Your task to perform on an android device: Search for the new iphone 13 pro on Etsy. Image 0: 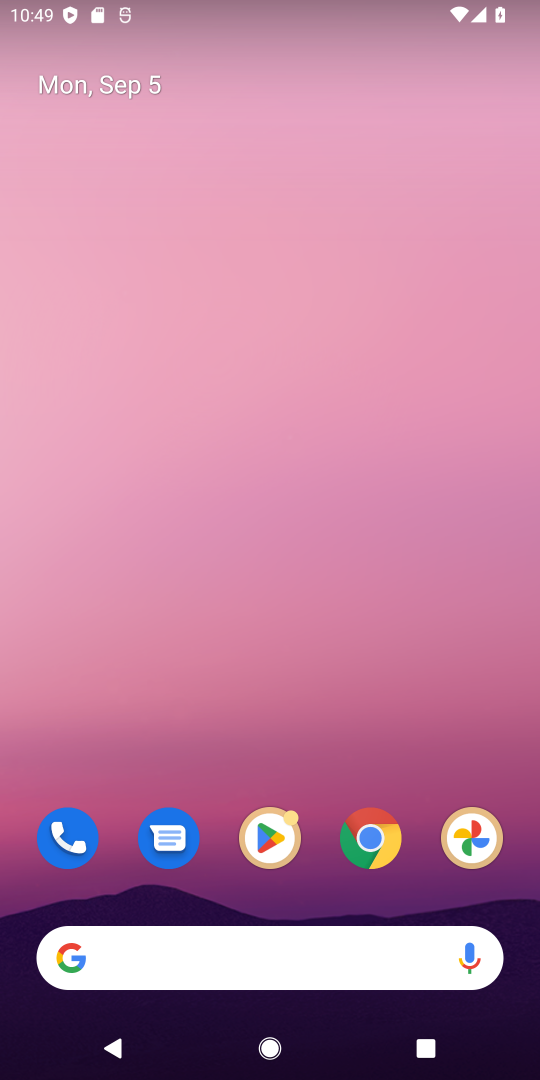
Step 0: click (299, 944)
Your task to perform on an android device: Search for the new iphone 13 pro on Etsy. Image 1: 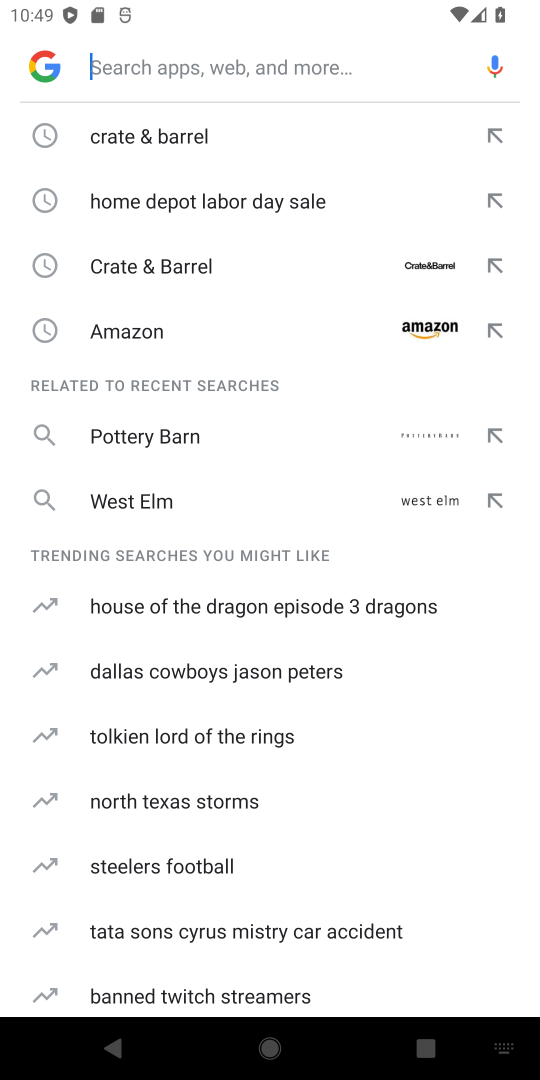
Step 1: type "Etsy"
Your task to perform on an android device: Search for the new iphone 13 pro on Etsy. Image 2: 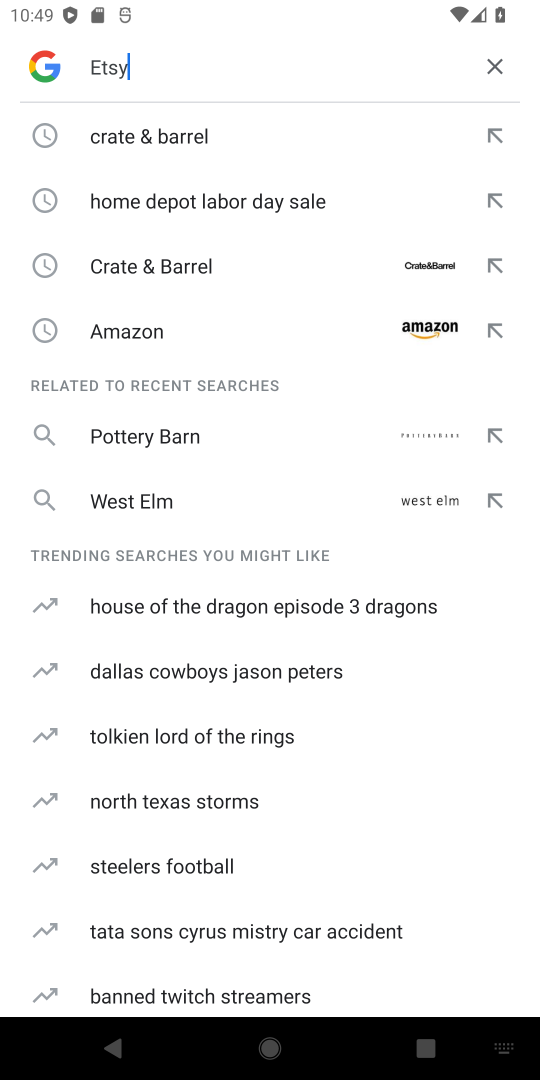
Step 2: type ""
Your task to perform on an android device: Search for the new iphone 13 pro on Etsy. Image 3: 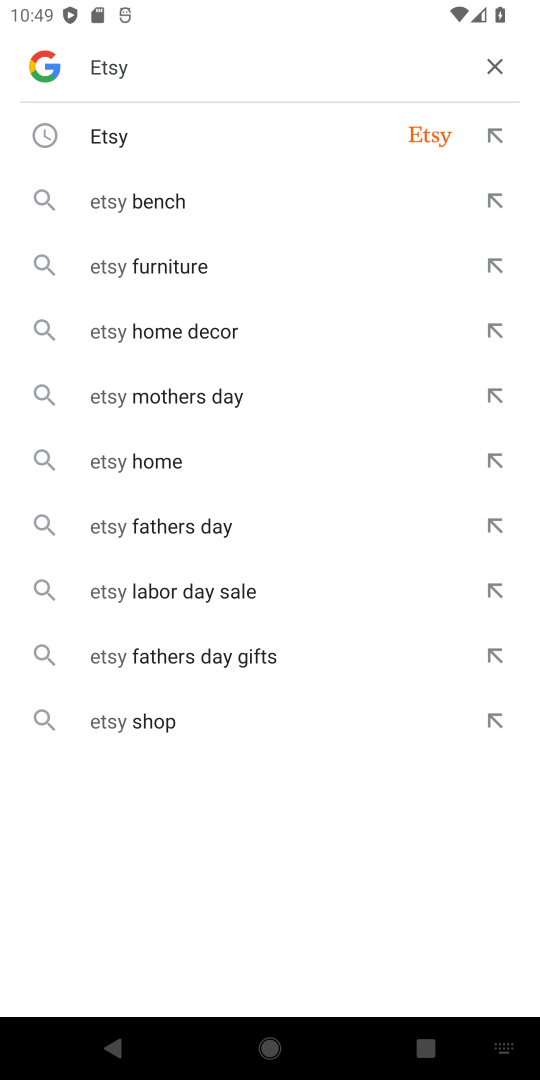
Step 3: click (136, 141)
Your task to perform on an android device: Search for the new iphone 13 pro on Etsy. Image 4: 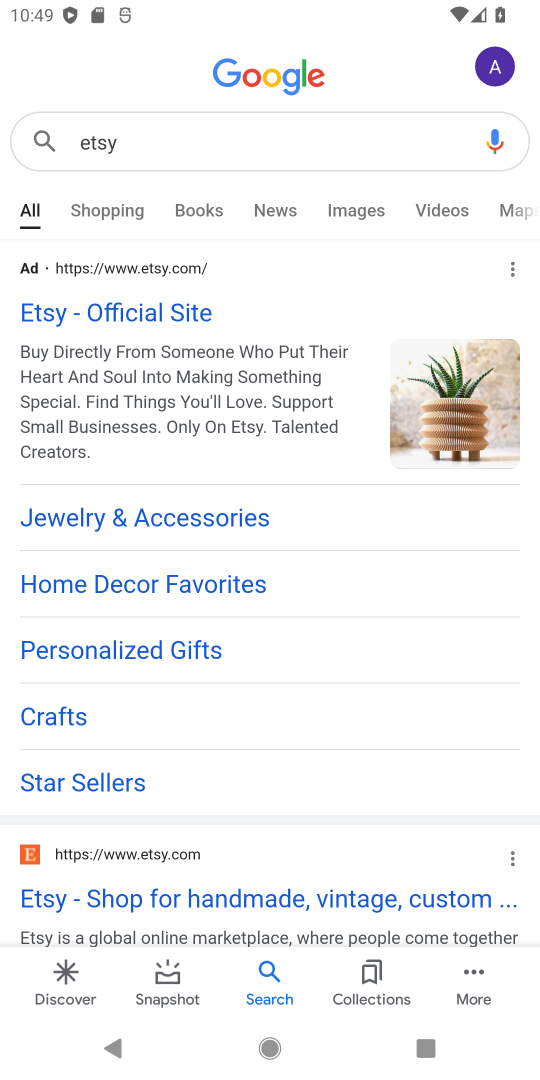
Step 4: click (156, 907)
Your task to perform on an android device: Search for the new iphone 13 pro on Etsy. Image 5: 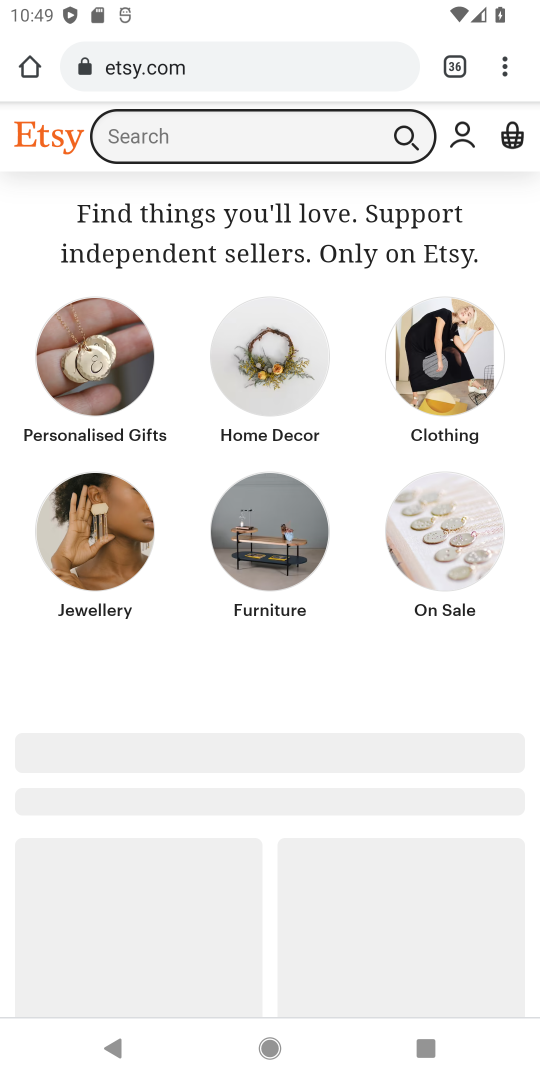
Step 5: click (220, 153)
Your task to perform on an android device: Search for the new iphone 13 pro on Etsy. Image 6: 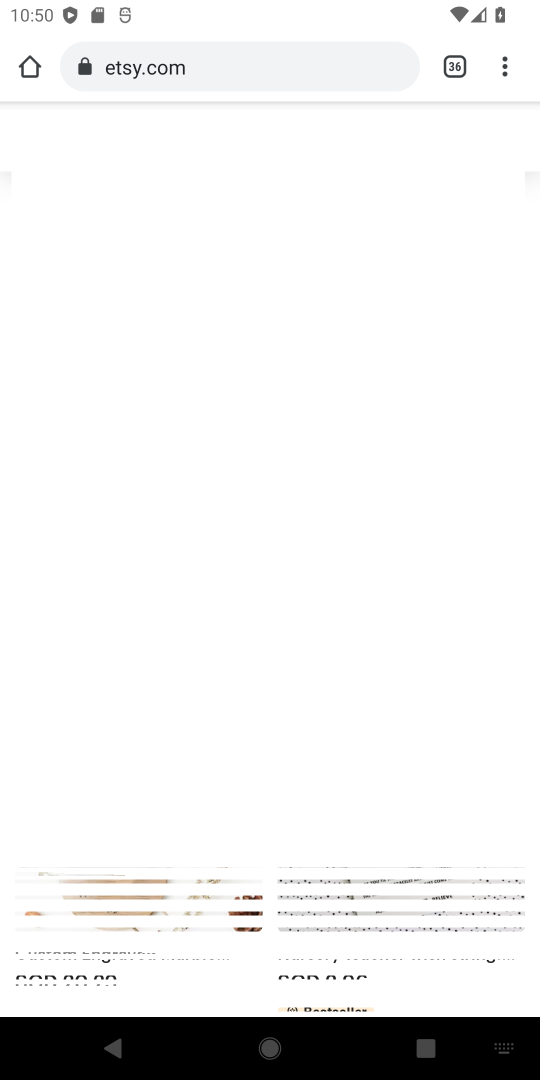
Step 6: type " iphone 13"
Your task to perform on an android device: Search for the new iphone 13 pro on Etsy. Image 7: 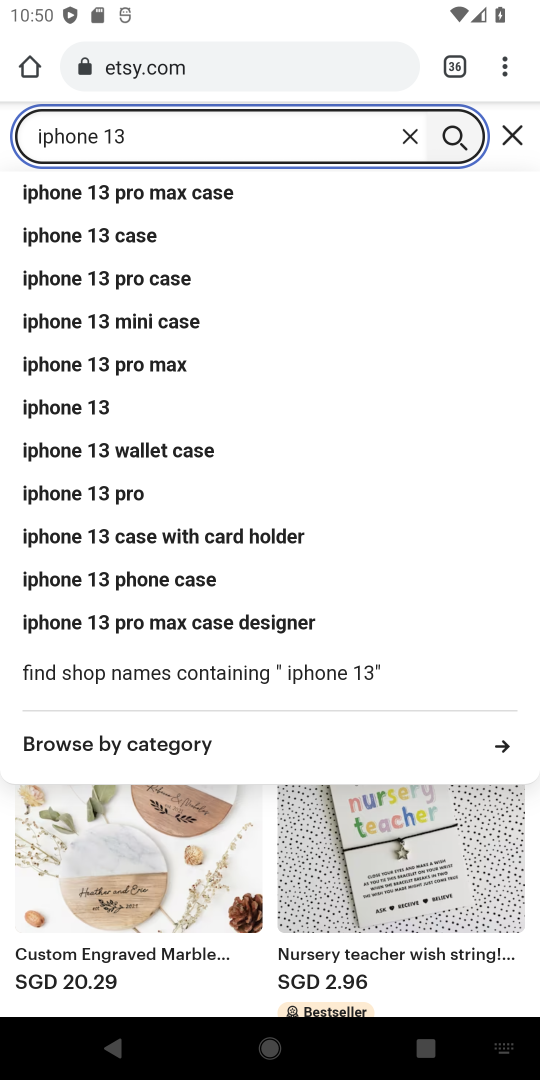
Step 7: click (127, 417)
Your task to perform on an android device: Search for the new iphone 13 pro on Etsy. Image 8: 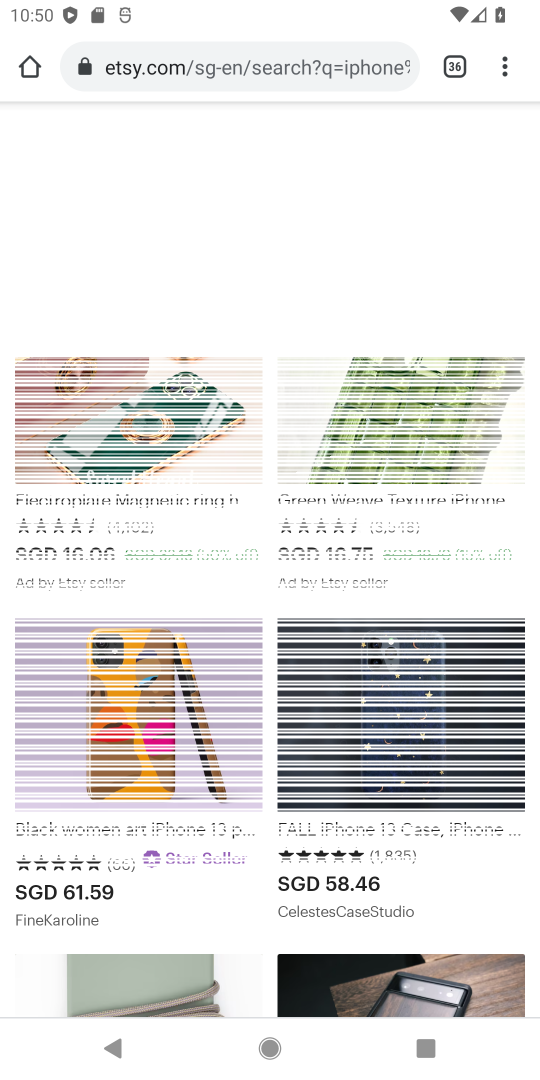
Step 8: drag from (242, 865) to (260, 436)
Your task to perform on an android device: Search for the new iphone 13 pro on Etsy. Image 9: 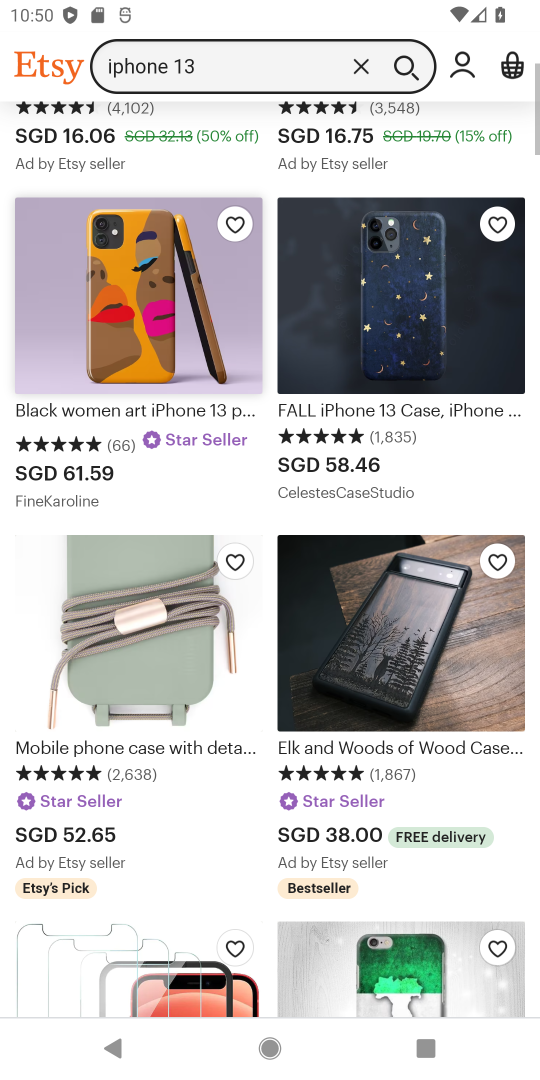
Step 9: click (260, 662)
Your task to perform on an android device: Search for the new iphone 13 pro on Etsy. Image 10: 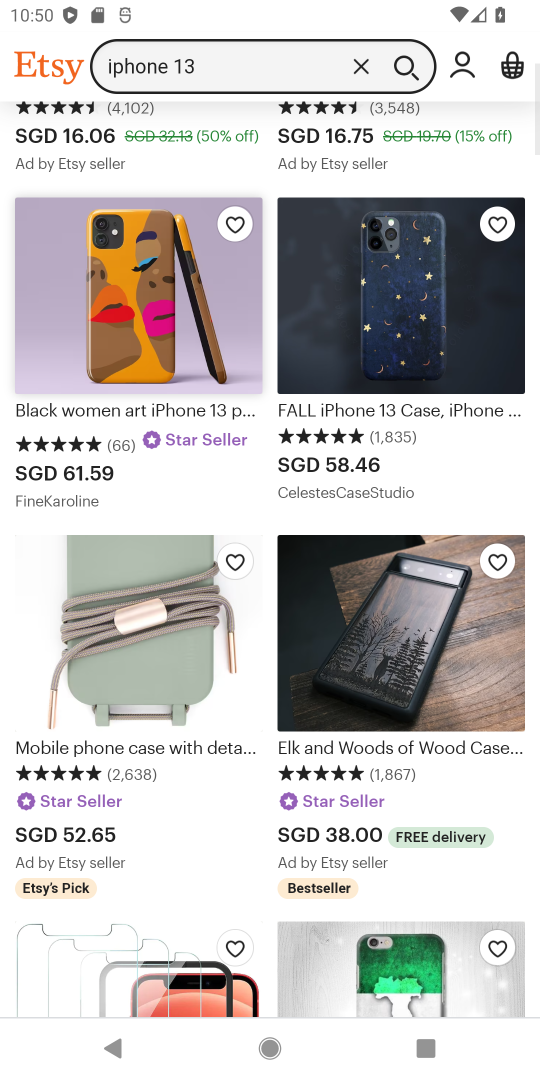
Step 10: click (340, 451)
Your task to perform on an android device: Search for the new iphone 13 pro on Etsy. Image 11: 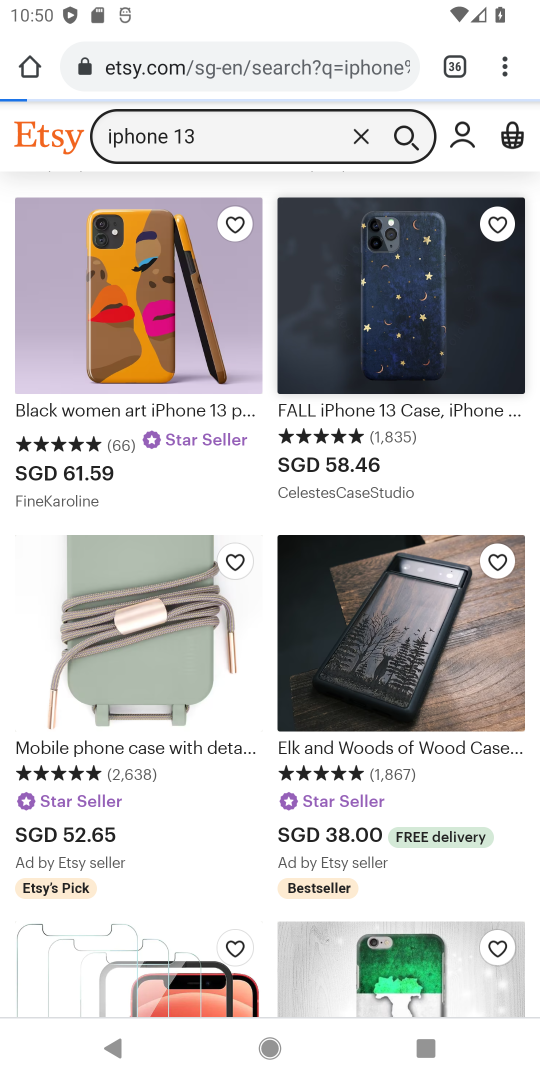
Step 11: click (336, 481)
Your task to perform on an android device: Search for the new iphone 13 pro on Etsy. Image 12: 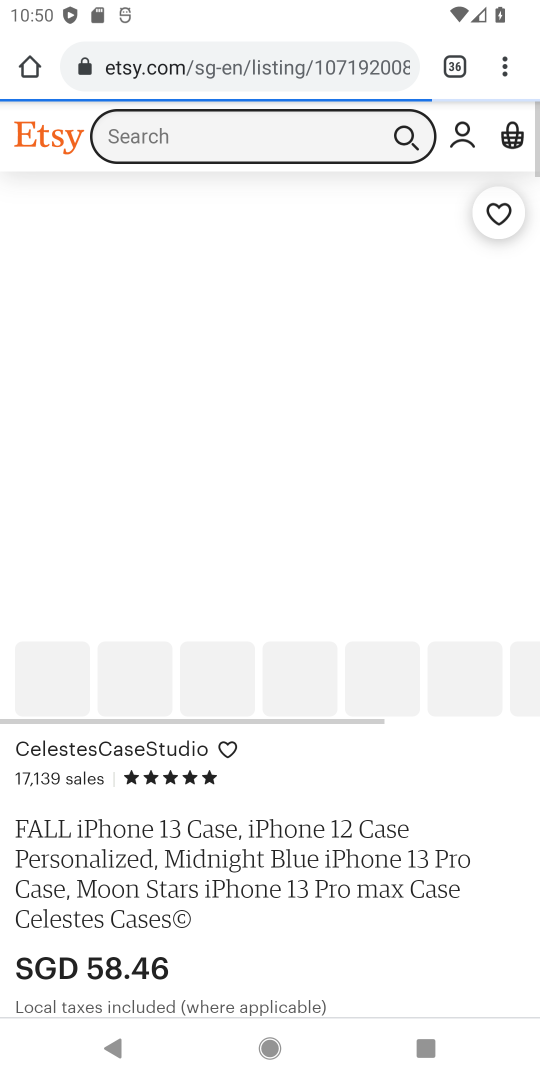
Step 12: task complete